Your task to perform on an android device: Empty the shopping cart on costco. Add logitech g pro to the cart on costco, then select checkout. Image 0: 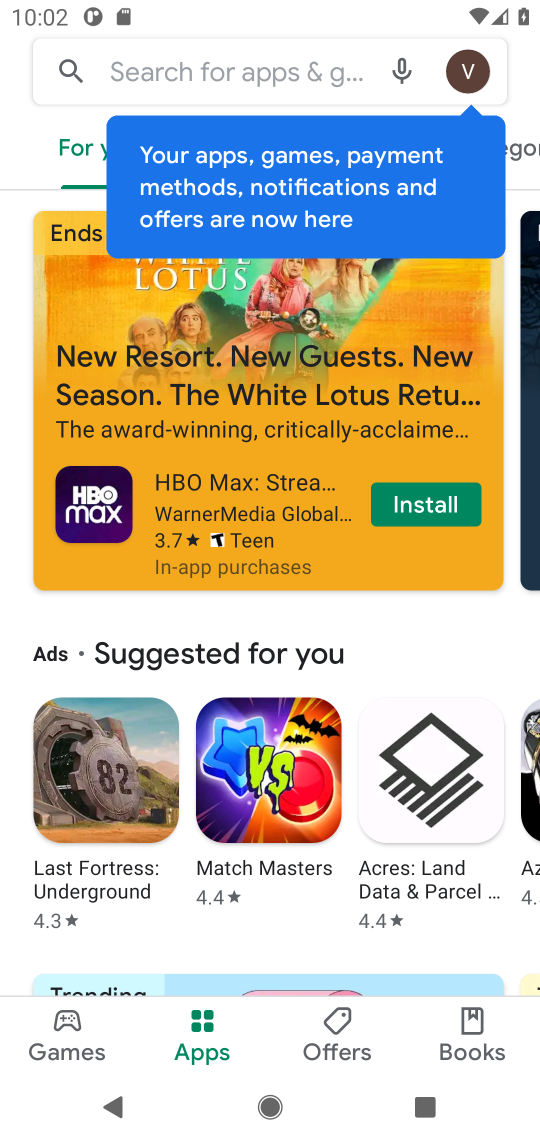
Step 0: press home button
Your task to perform on an android device: Empty the shopping cart on costco. Add logitech g pro to the cart on costco, then select checkout. Image 1: 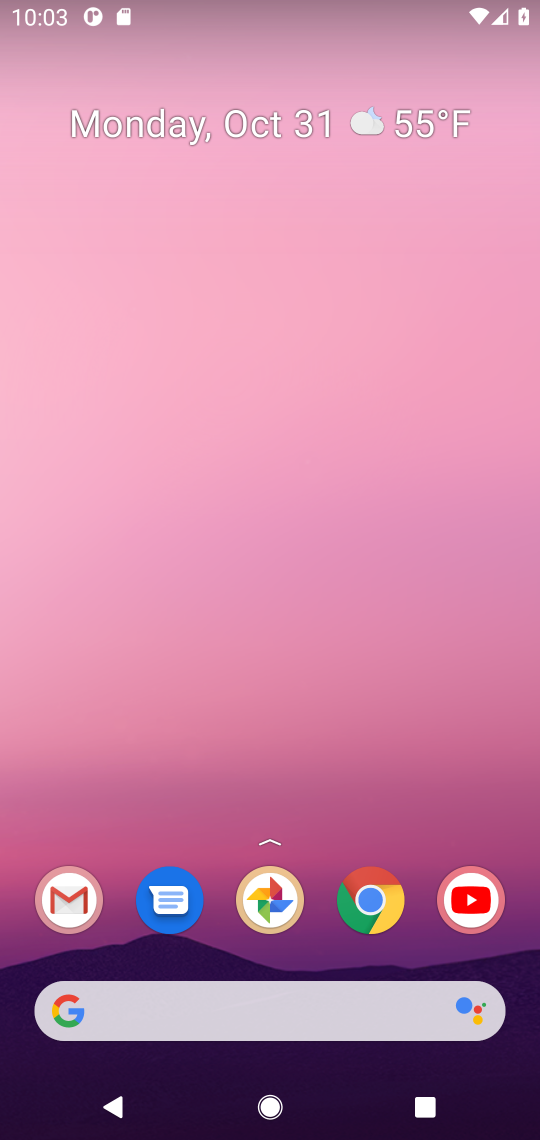
Step 1: click (379, 906)
Your task to perform on an android device: Empty the shopping cart on costco. Add logitech g pro to the cart on costco, then select checkout. Image 2: 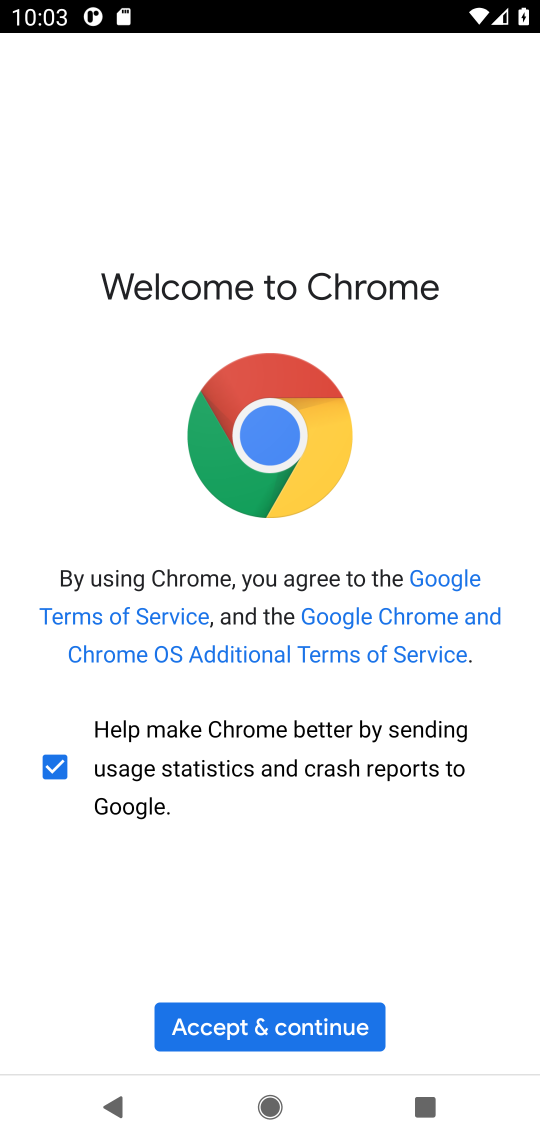
Step 2: click (254, 1042)
Your task to perform on an android device: Empty the shopping cart on costco. Add logitech g pro to the cart on costco, then select checkout. Image 3: 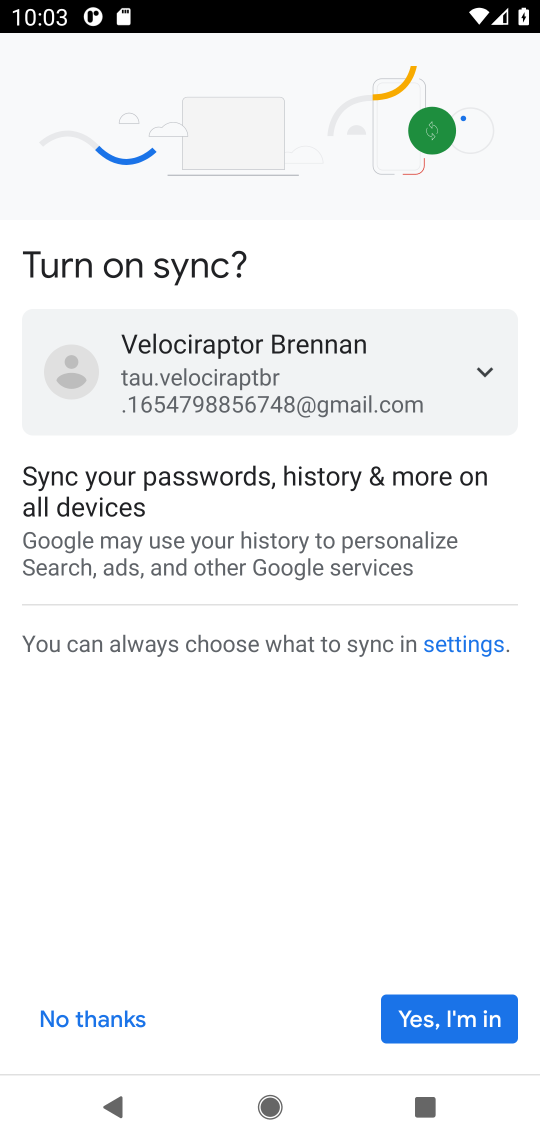
Step 3: click (404, 1017)
Your task to perform on an android device: Empty the shopping cart on costco. Add logitech g pro to the cart on costco, then select checkout. Image 4: 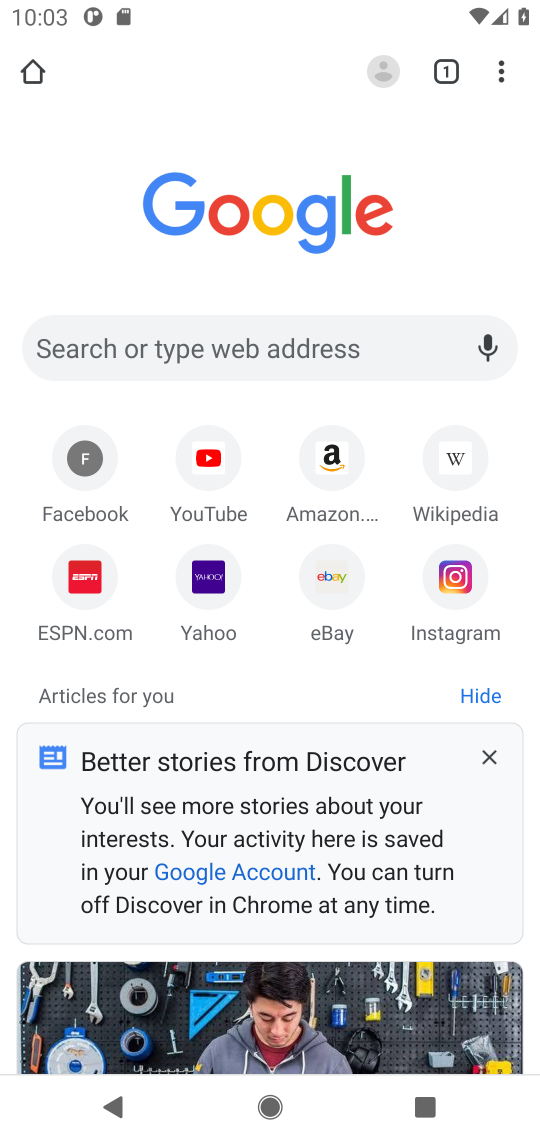
Step 4: click (149, 353)
Your task to perform on an android device: Empty the shopping cart on costco. Add logitech g pro to the cart on costco, then select checkout. Image 5: 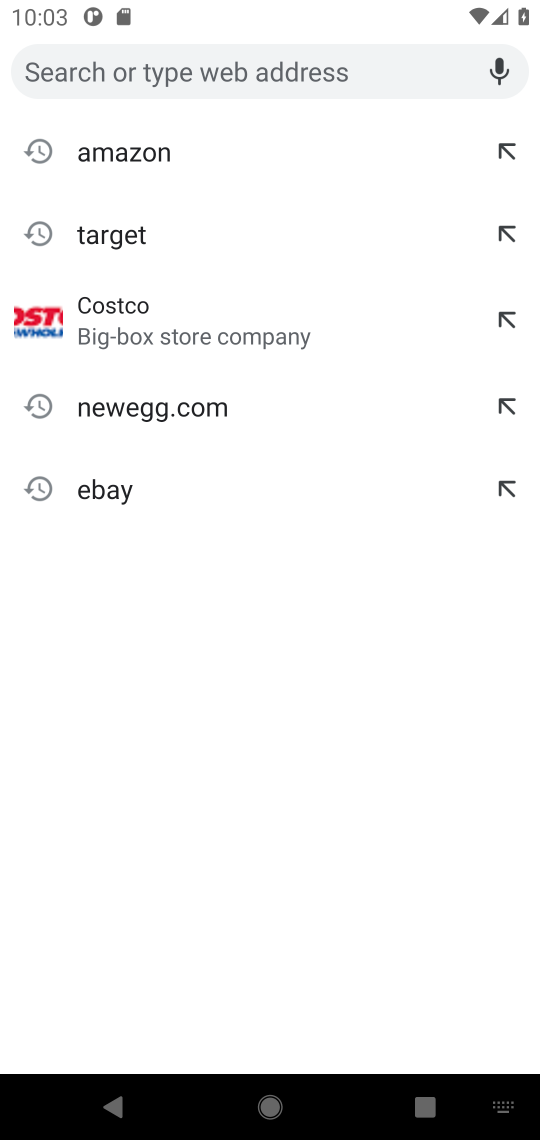
Step 5: type "costco.com"
Your task to perform on an android device: Empty the shopping cart on costco. Add logitech g pro to the cart on costco, then select checkout. Image 6: 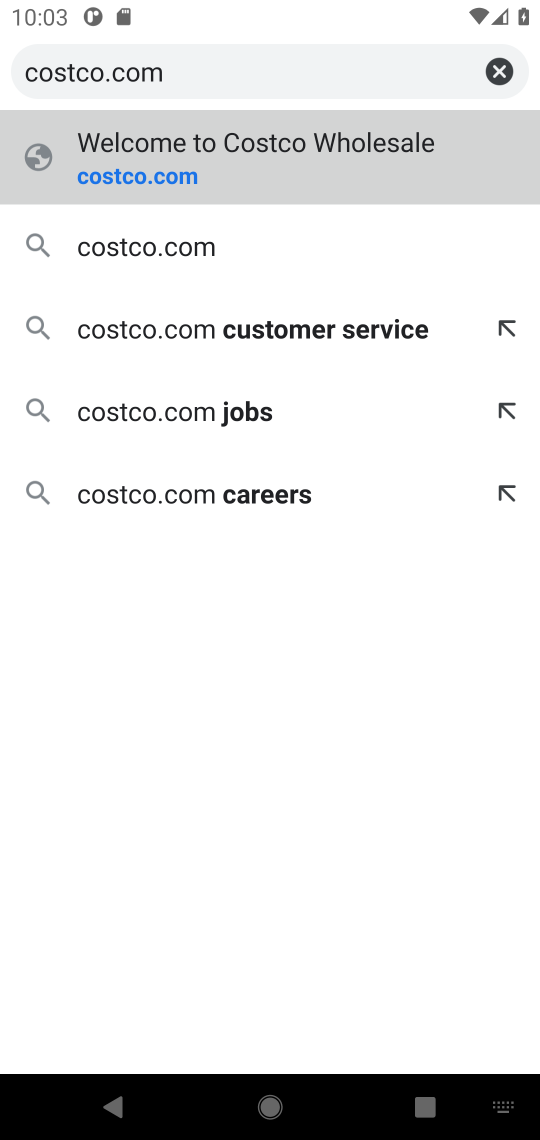
Step 6: click (189, 183)
Your task to perform on an android device: Empty the shopping cart on costco. Add logitech g pro to the cart on costco, then select checkout. Image 7: 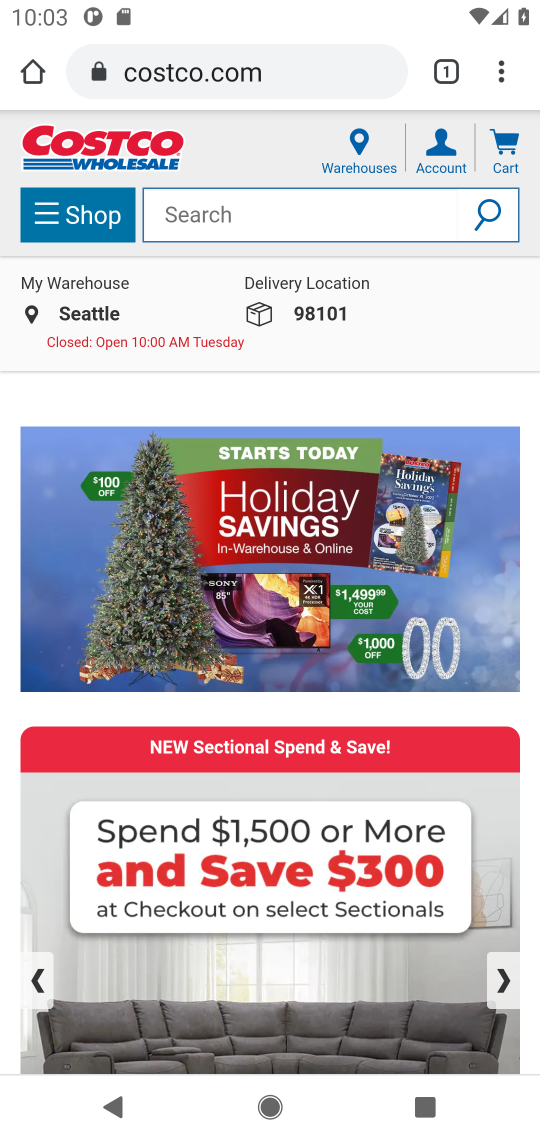
Step 7: click (509, 157)
Your task to perform on an android device: Empty the shopping cart on costco. Add logitech g pro to the cart on costco, then select checkout. Image 8: 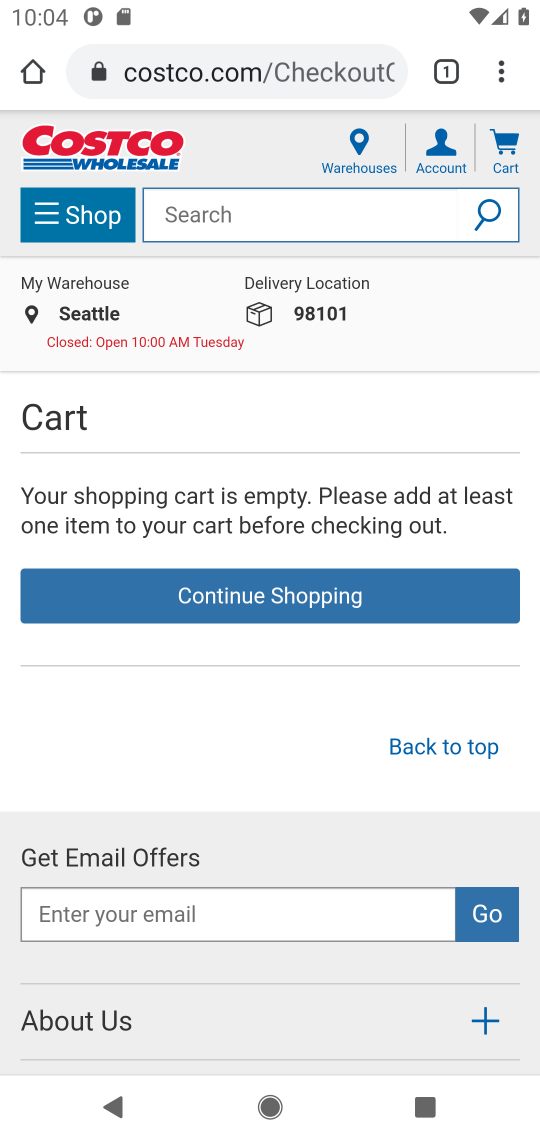
Step 8: click (254, 215)
Your task to perform on an android device: Empty the shopping cart on costco. Add logitech g pro to the cart on costco, then select checkout. Image 9: 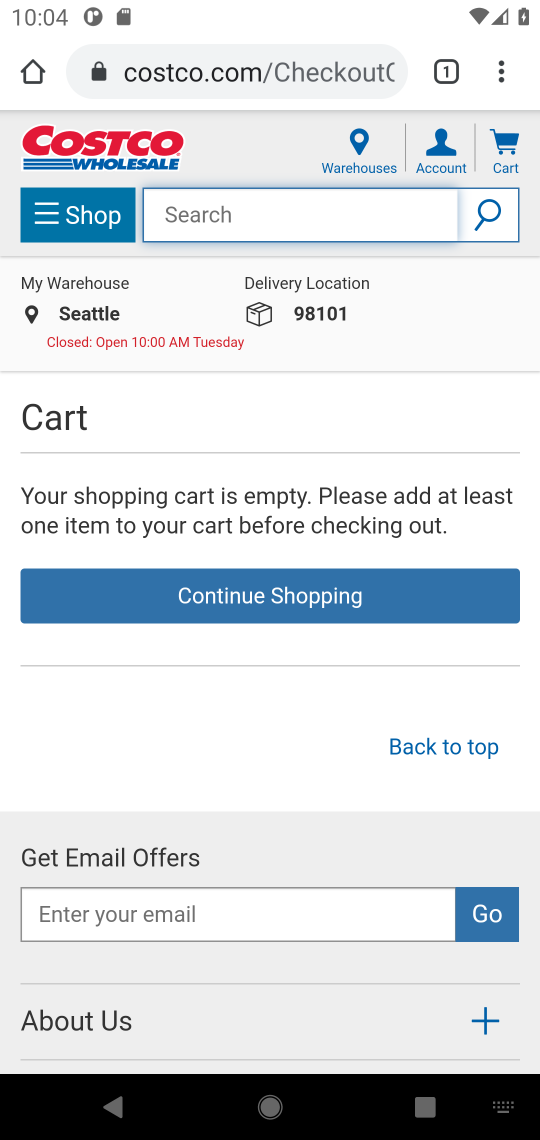
Step 9: click (331, 213)
Your task to perform on an android device: Empty the shopping cart on costco. Add logitech g pro to the cart on costco, then select checkout. Image 10: 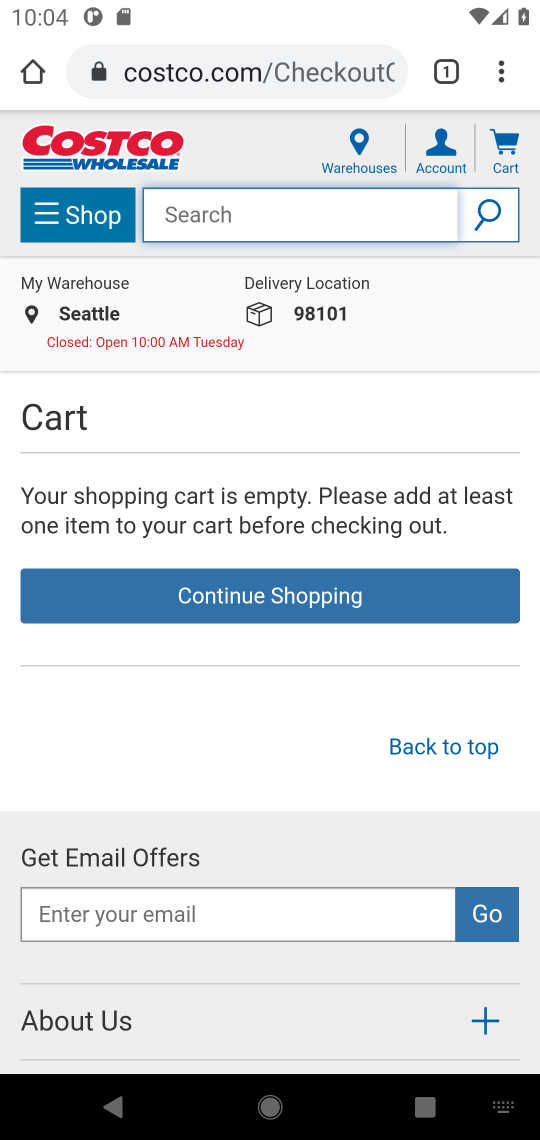
Step 10: type "logitech g pro"
Your task to perform on an android device: Empty the shopping cart on costco. Add logitech g pro to the cart on costco, then select checkout. Image 11: 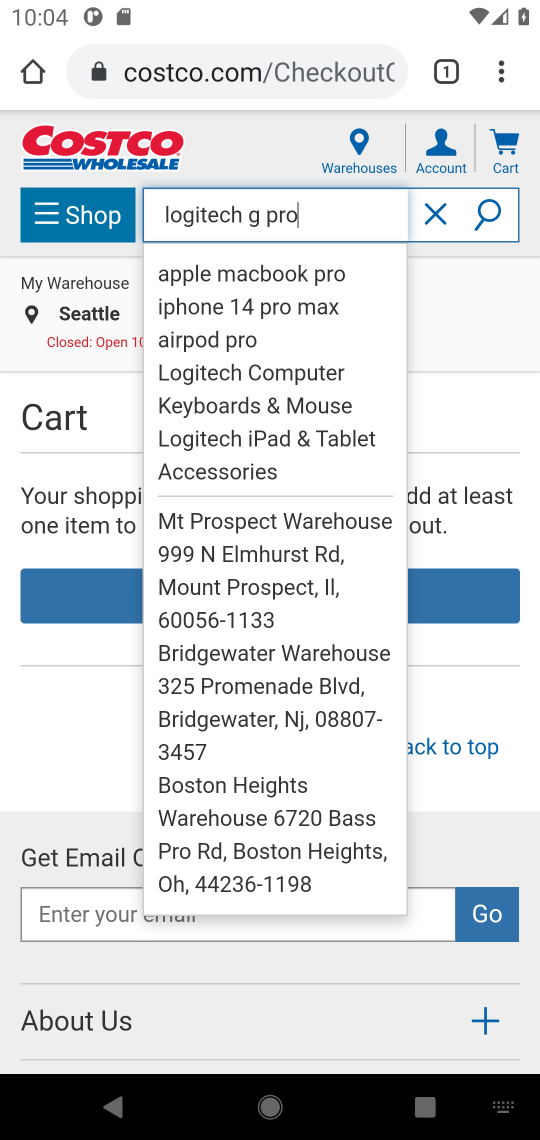
Step 11: click (483, 208)
Your task to perform on an android device: Empty the shopping cart on costco. Add logitech g pro to the cart on costco, then select checkout. Image 12: 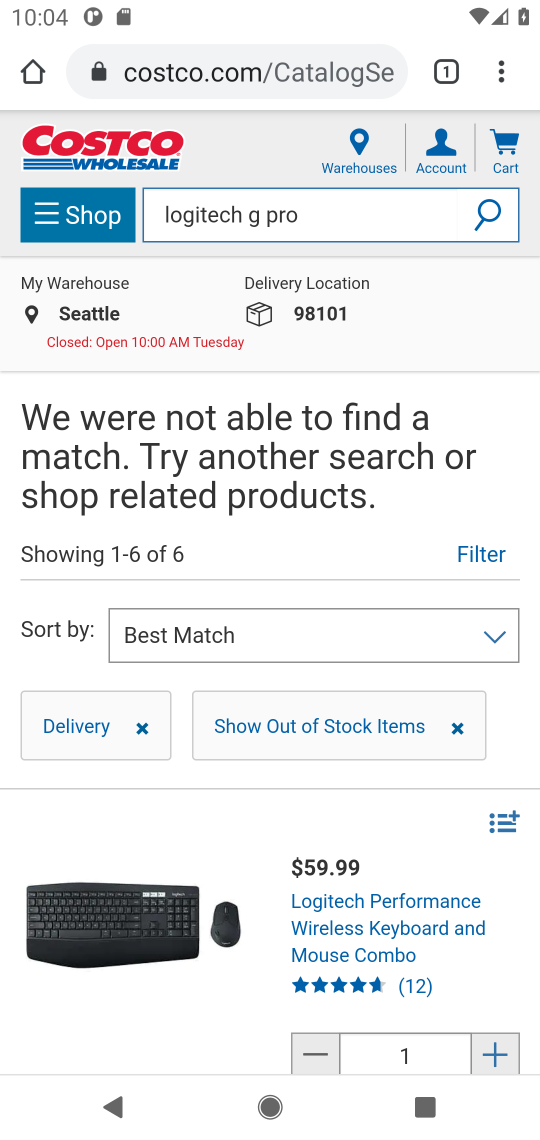
Step 12: task complete